Your task to perform on an android device: Go to Google Image 0: 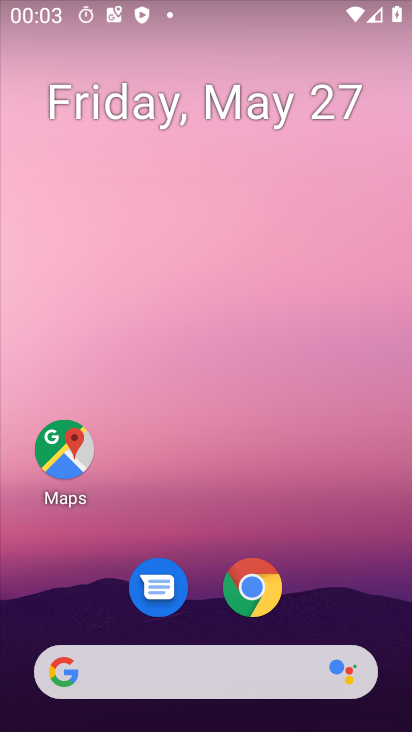
Step 0: drag from (355, 579) to (364, 6)
Your task to perform on an android device: Go to Google Image 1: 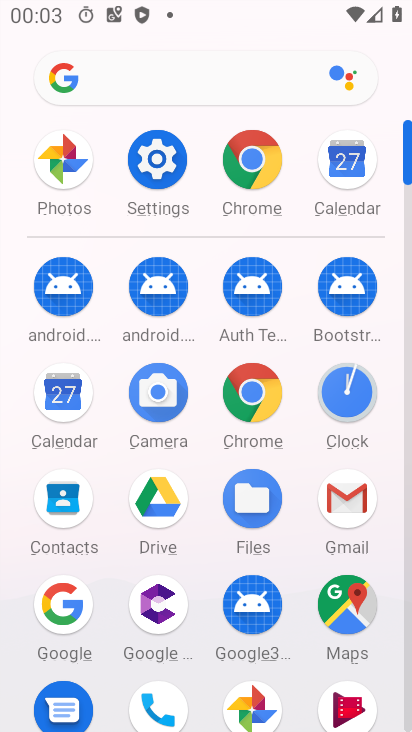
Step 1: click (66, 606)
Your task to perform on an android device: Go to Google Image 2: 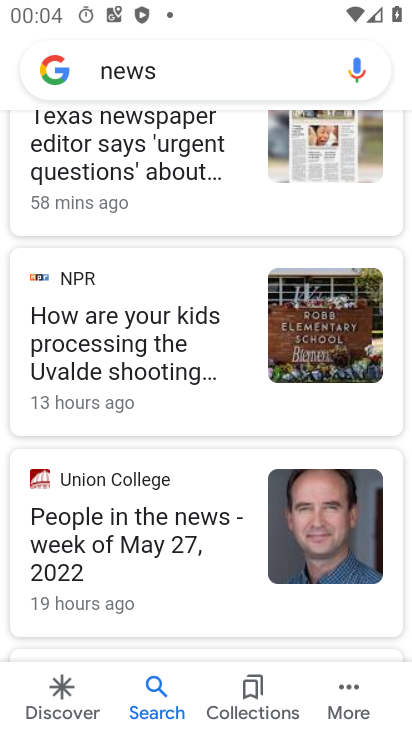
Step 2: task complete